Your task to perform on an android device: Open Amazon Image 0: 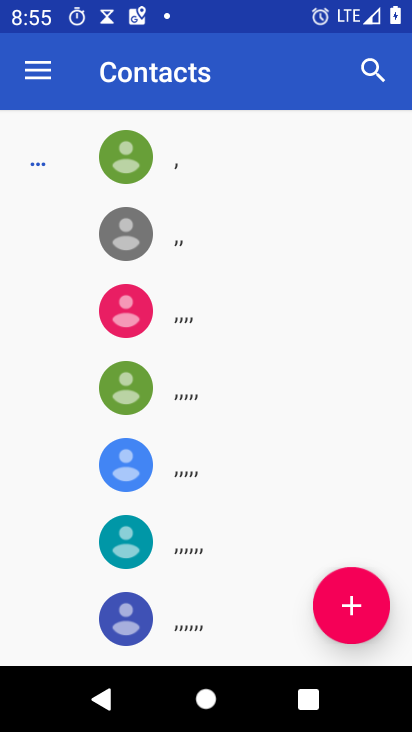
Step 0: press home button
Your task to perform on an android device: Open Amazon Image 1: 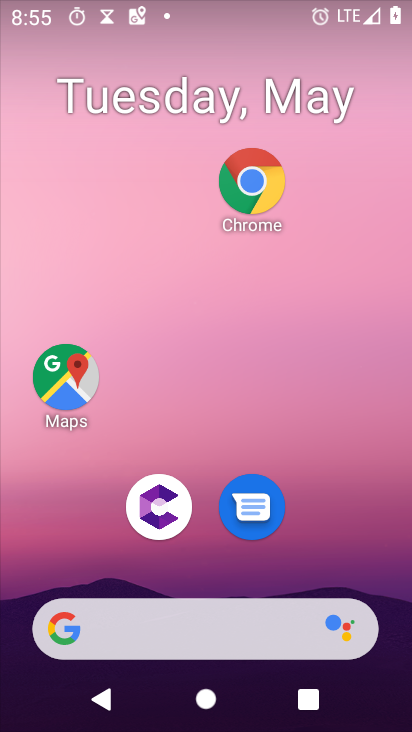
Step 1: click (243, 183)
Your task to perform on an android device: Open Amazon Image 2: 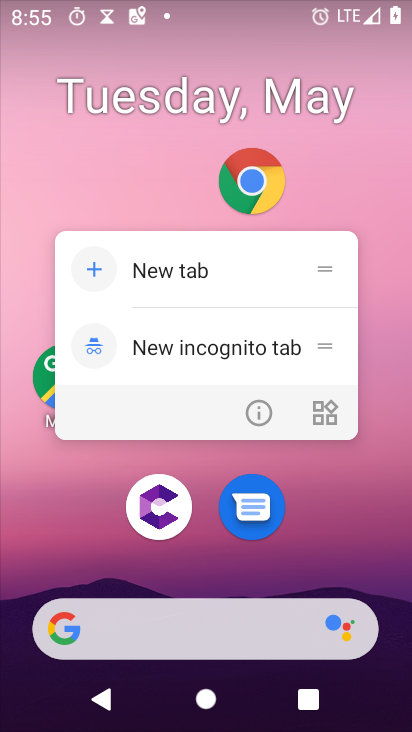
Step 2: click (243, 183)
Your task to perform on an android device: Open Amazon Image 3: 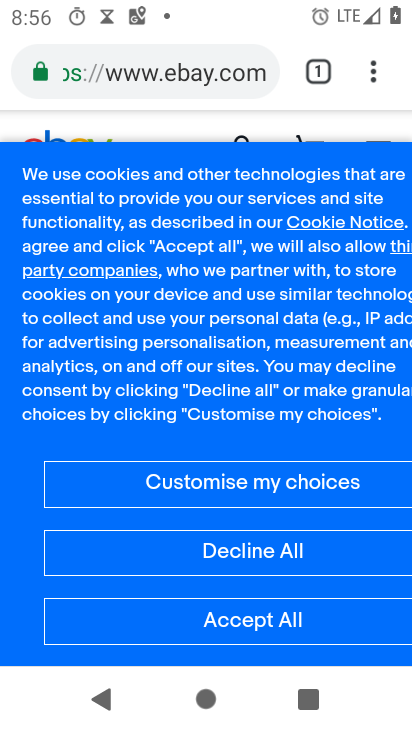
Step 3: click (94, 75)
Your task to perform on an android device: Open Amazon Image 4: 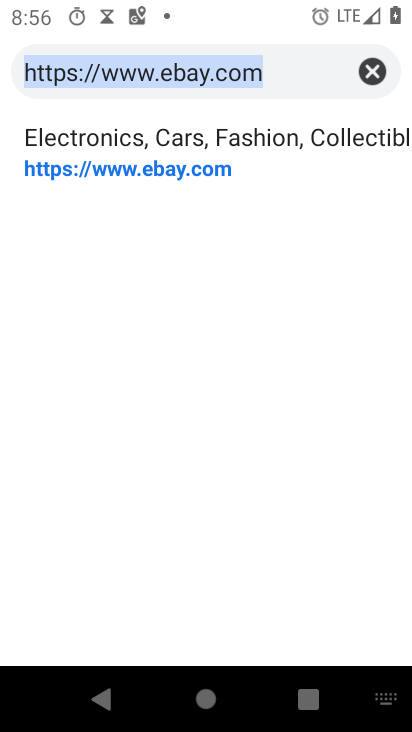
Step 4: type "amazon"
Your task to perform on an android device: Open Amazon Image 5: 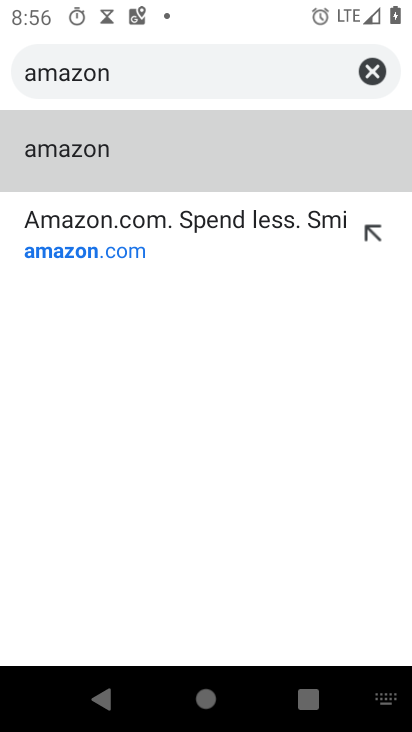
Step 5: click (100, 150)
Your task to perform on an android device: Open Amazon Image 6: 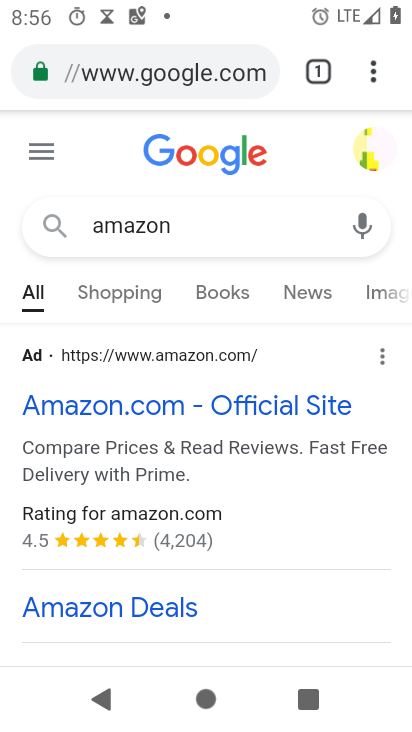
Step 6: click (100, 407)
Your task to perform on an android device: Open Amazon Image 7: 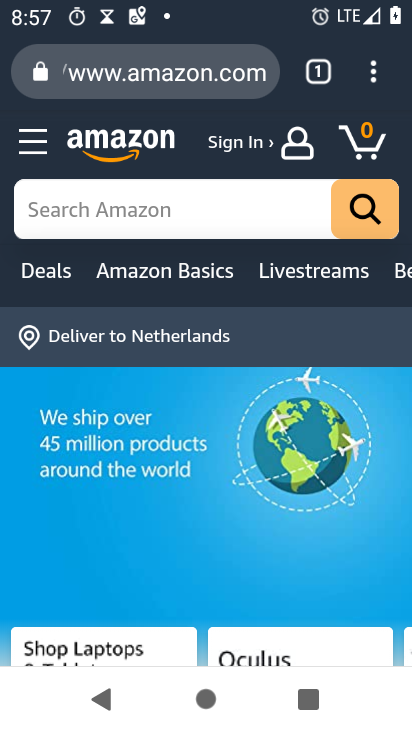
Step 7: task complete